Your task to perform on an android device: move a message to another label in the gmail app Image 0: 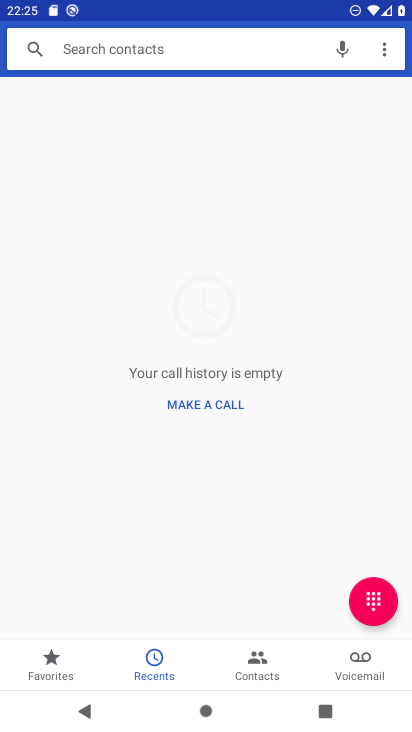
Step 0: press home button
Your task to perform on an android device: move a message to another label in the gmail app Image 1: 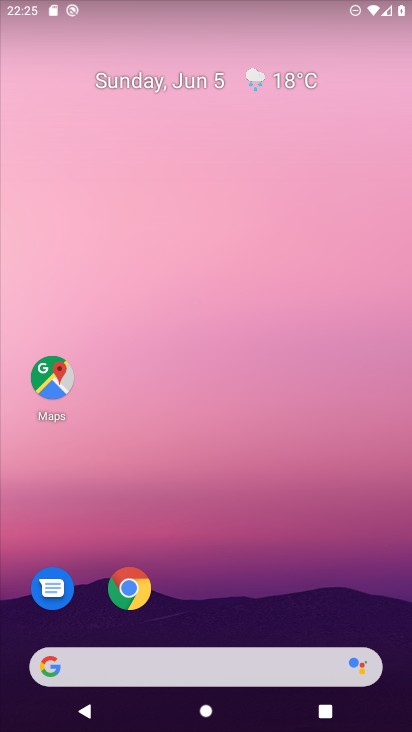
Step 1: drag from (323, 586) to (310, 153)
Your task to perform on an android device: move a message to another label in the gmail app Image 2: 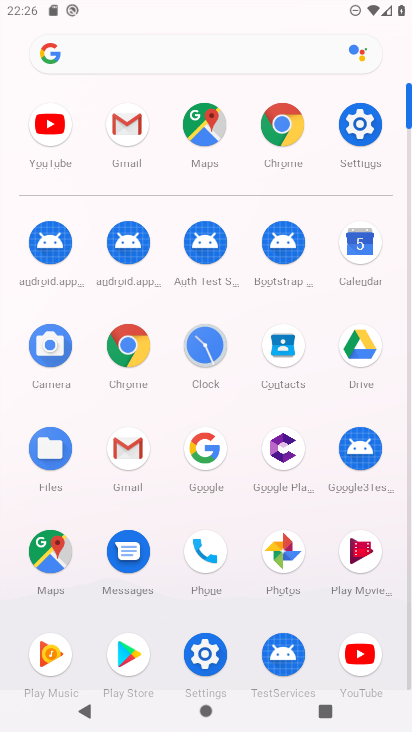
Step 2: click (130, 454)
Your task to perform on an android device: move a message to another label in the gmail app Image 3: 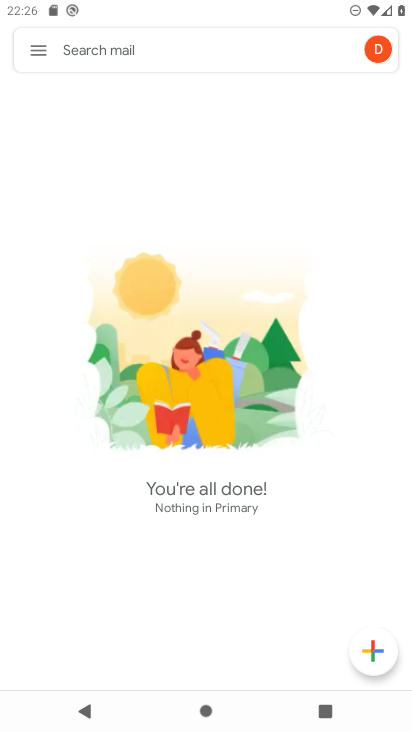
Step 3: task complete